Your task to perform on an android device: Do I have any events this weekend? Image 0: 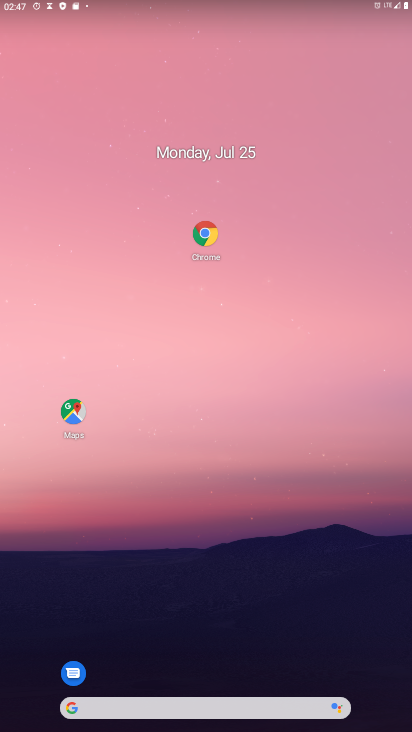
Step 0: drag from (152, 692) to (270, 41)
Your task to perform on an android device: Do I have any events this weekend? Image 1: 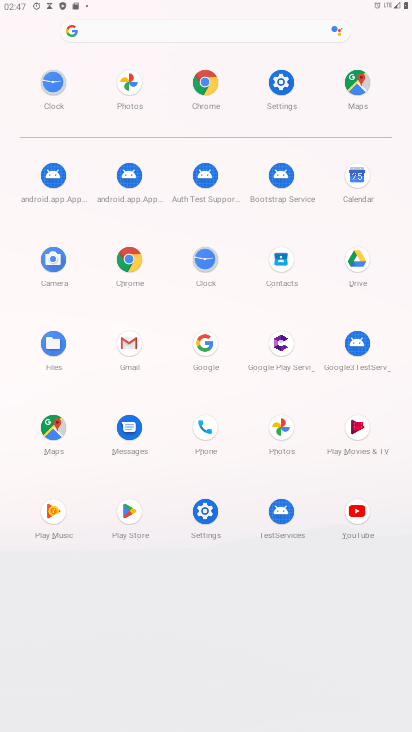
Step 1: click (356, 180)
Your task to perform on an android device: Do I have any events this weekend? Image 2: 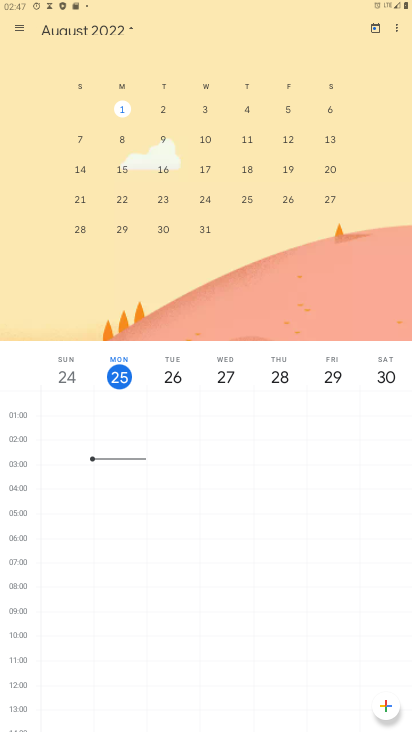
Step 2: drag from (47, 188) to (378, 190)
Your task to perform on an android device: Do I have any events this weekend? Image 3: 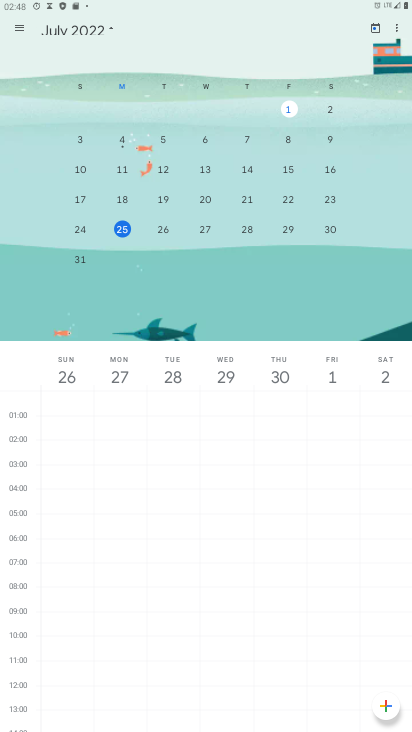
Step 3: drag from (344, 196) to (45, 164)
Your task to perform on an android device: Do I have any events this weekend? Image 4: 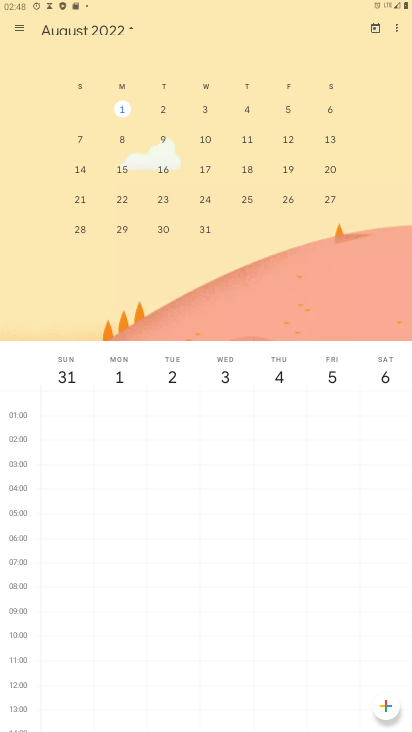
Step 4: click (208, 107)
Your task to perform on an android device: Do I have any events this weekend? Image 5: 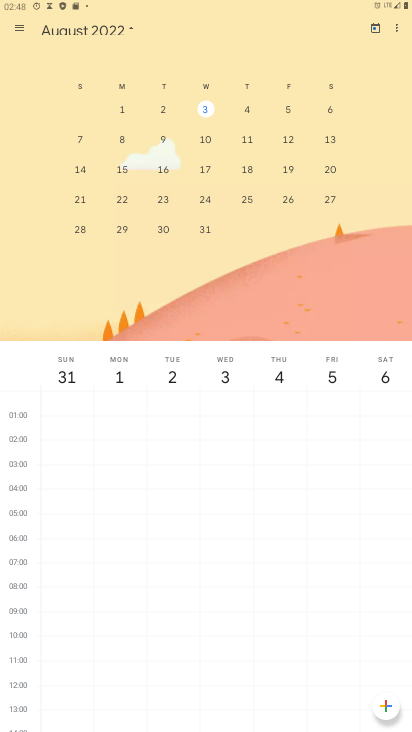
Step 5: task complete